Your task to perform on an android device: Set the phone to "Do not disturb". Image 0: 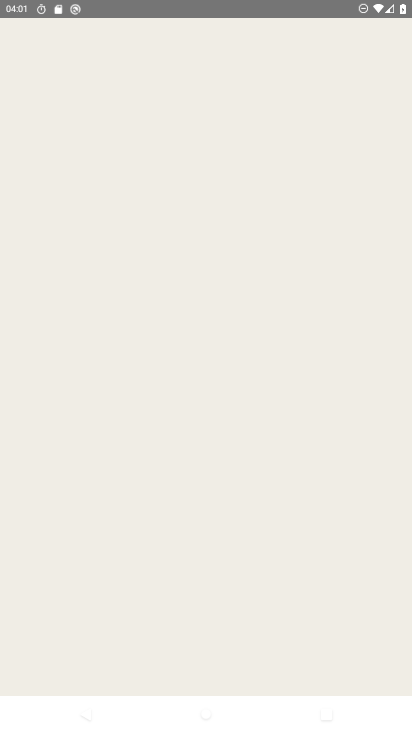
Step 0: press home button
Your task to perform on an android device: Set the phone to "Do not disturb". Image 1: 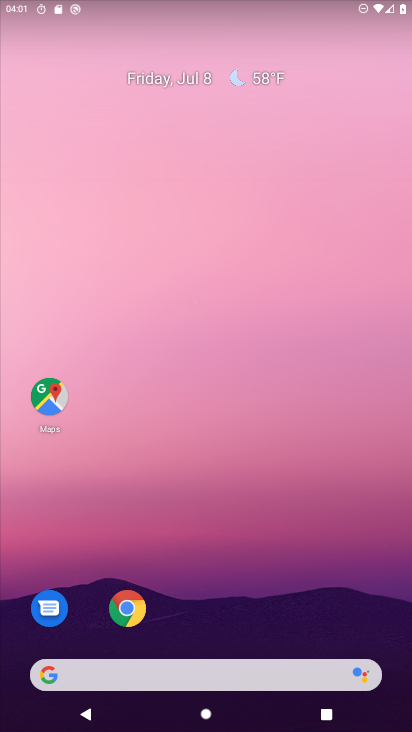
Step 1: drag from (253, 679) to (254, 75)
Your task to perform on an android device: Set the phone to "Do not disturb". Image 2: 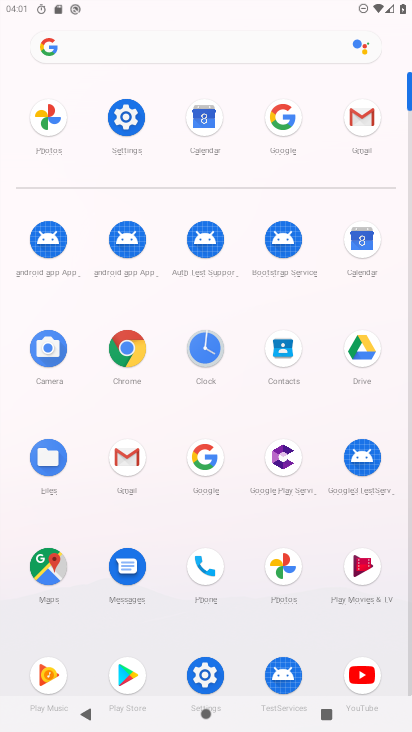
Step 2: click (124, 115)
Your task to perform on an android device: Set the phone to "Do not disturb". Image 3: 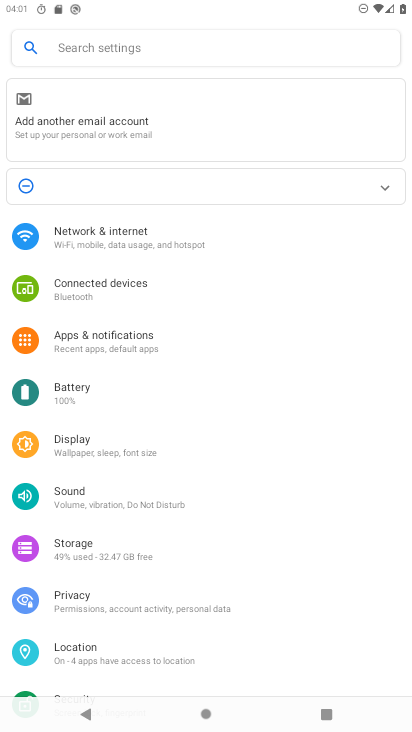
Step 3: click (126, 503)
Your task to perform on an android device: Set the phone to "Do not disturb". Image 4: 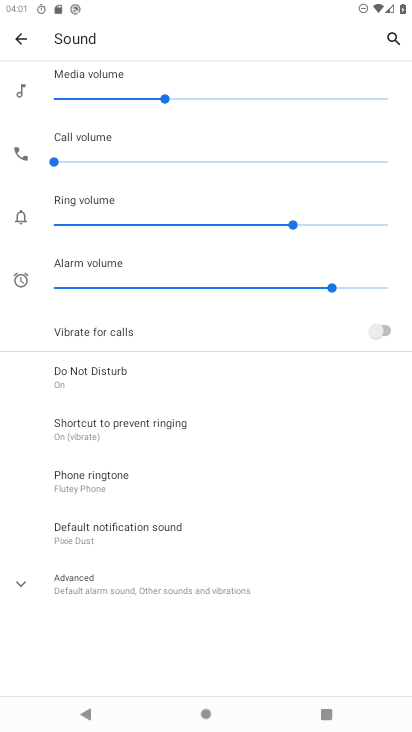
Step 4: click (90, 369)
Your task to perform on an android device: Set the phone to "Do not disturb". Image 5: 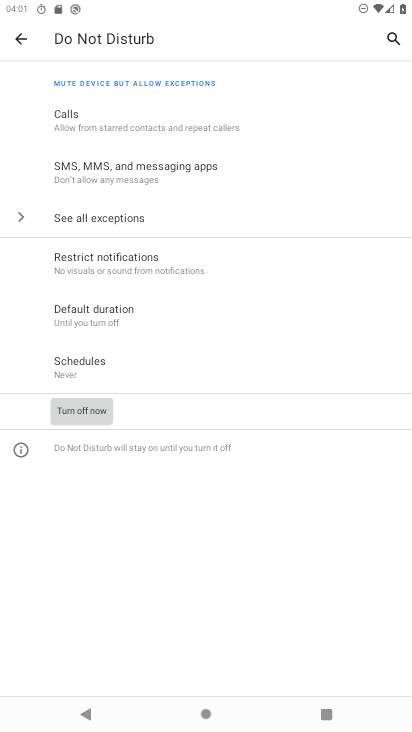
Step 5: task complete